Your task to perform on an android device: Do I have any events today? Image 0: 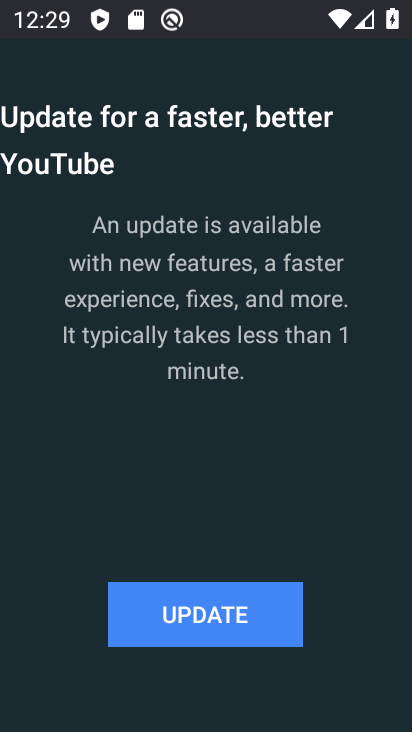
Step 0: press home button
Your task to perform on an android device: Do I have any events today? Image 1: 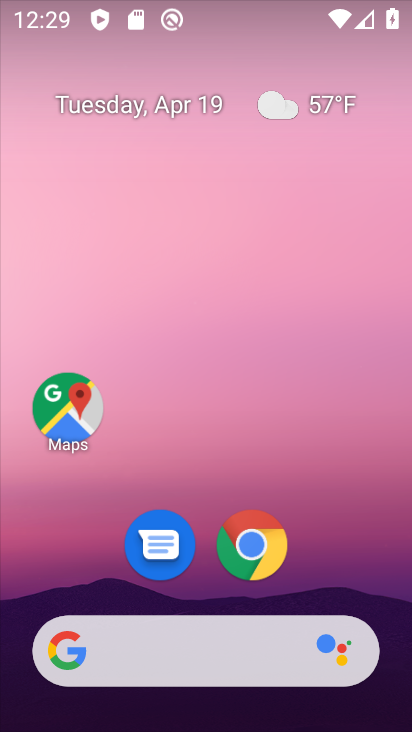
Step 1: drag from (221, 395) to (258, 52)
Your task to perform on an android device: Do I have any events today? Image 2: 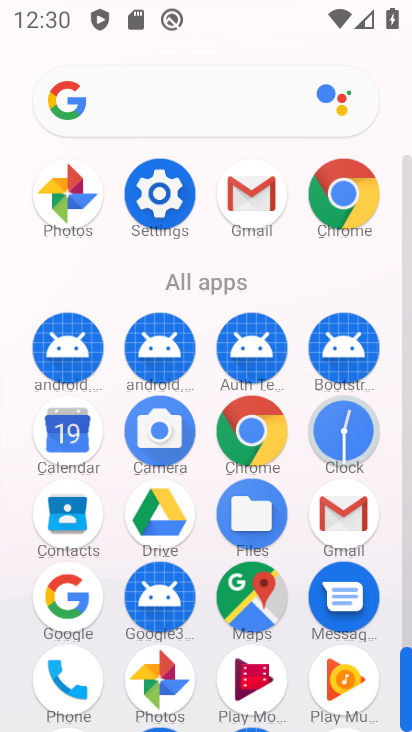
Step 2: click (61, 428)
Your task to perform on an android device: Do I have any events today? Image 3: 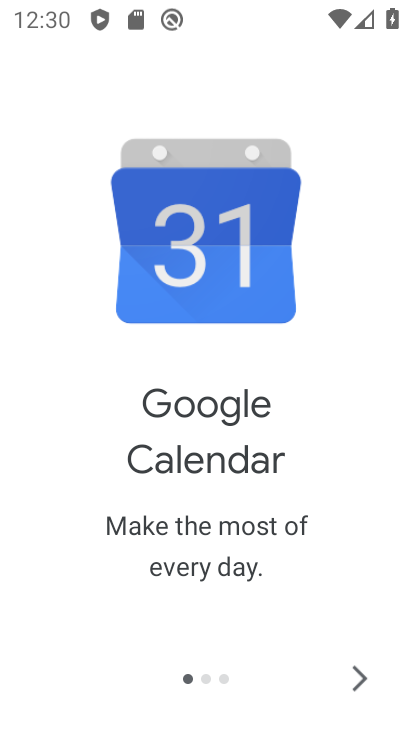
Step 3: click (347, 677)
Your task to perform on an android device: Do I have any events today? Image 4: 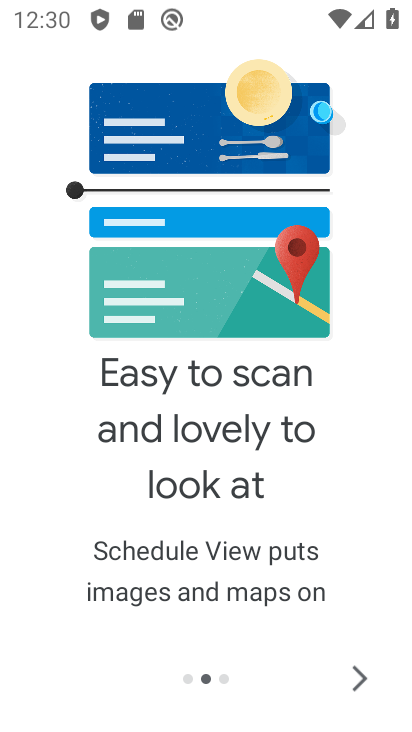
Step 4: click (349, 675)
Your task to perform on an android device: Do I have any events today? Image 5: 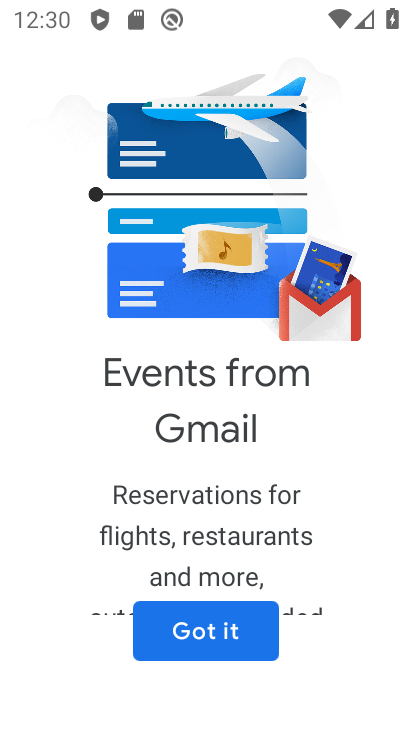
Step 5: click (233, 628)
Your task to perform on an android device: Do I have any events today? Image 6: 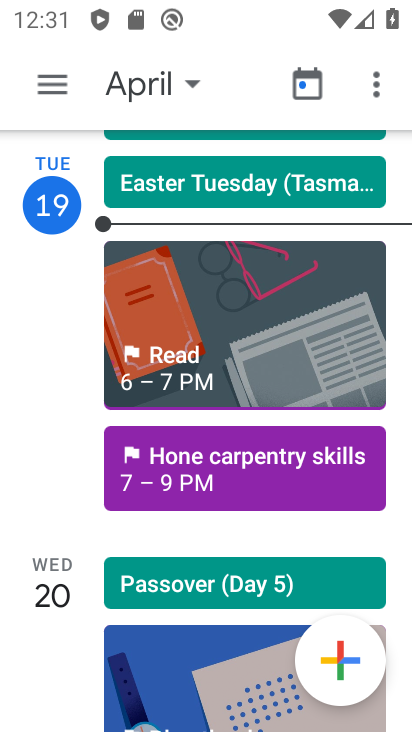
Step 6: click (255, 471)
Your task to perform on an android device: Do I have any events today? Image 7: 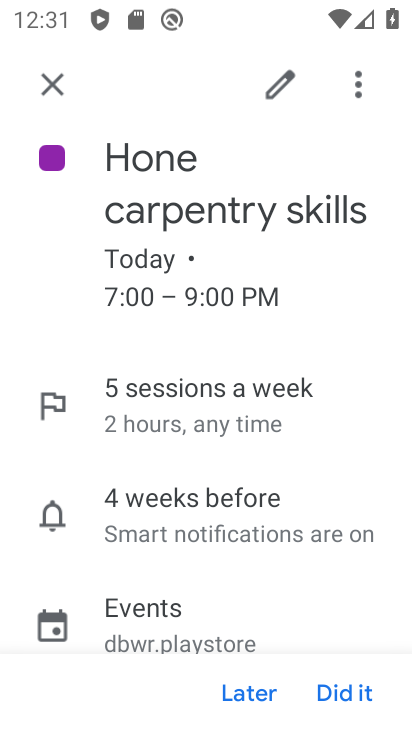
Step 7: task complete